Your task to perform on an android device: read, delete, or share a saved page in the chrome app Image 0: 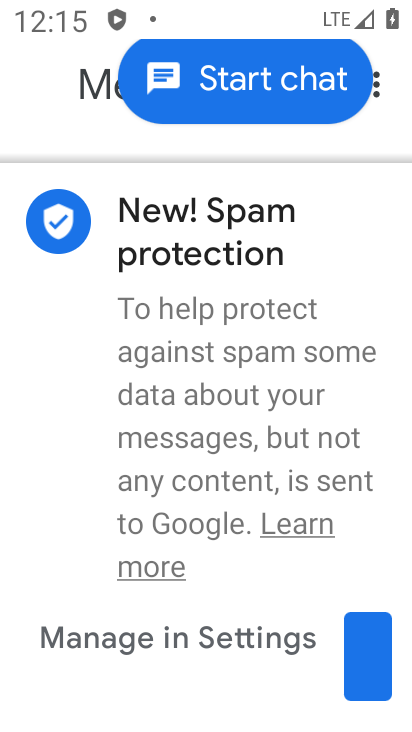
Step 0: press home button
Your task to perform on an android device: read, delete, or share a saved page in the chrome app Image 1: 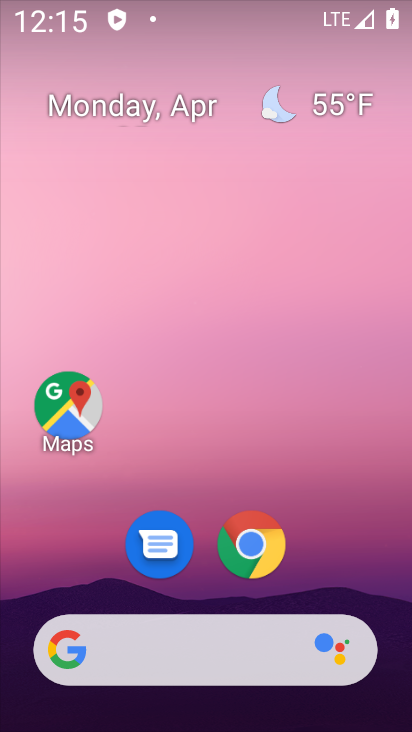
Step 1: click (269, 548)
Your task to perform on an android device: read, delete, or share a saved page in the chrome app Image 2: 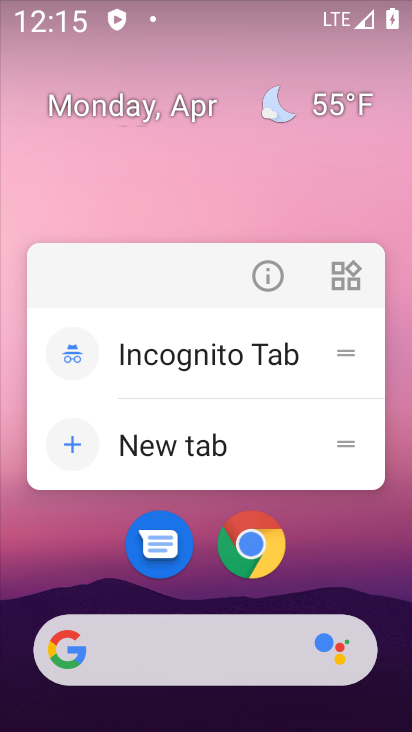
Step 2: click (269, 548)
Your task to perform on an android device: read, delete, or share a saved page in the chrome app Image 3: 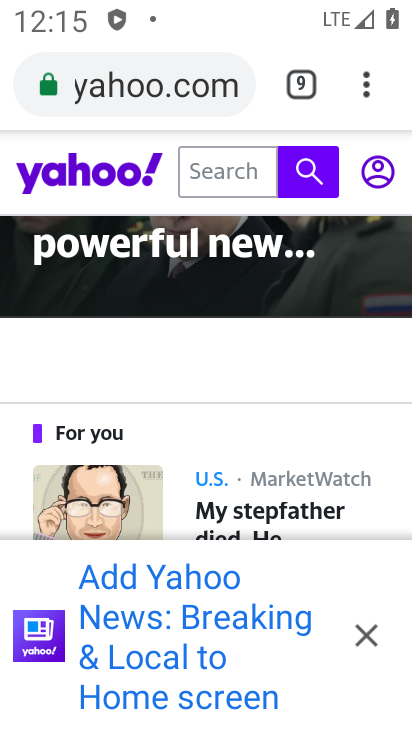
Step 3: drag from (366, 84) to (154, 440)
Your task to perform on an android device: read, delete, or share a saved page in the chrome app Image 4: 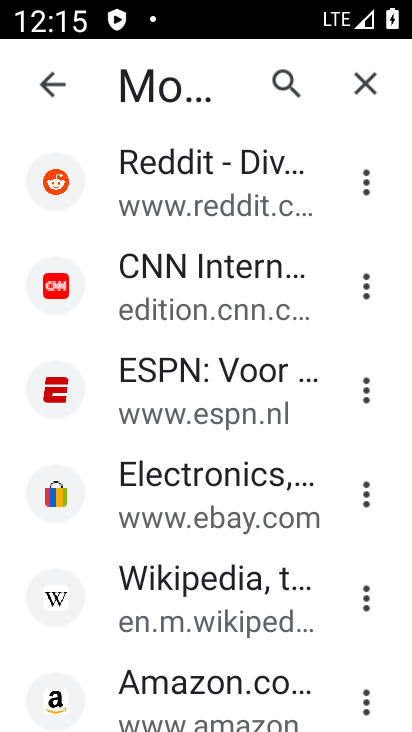
Step 4: drag from (212, 637) to (192, 249)
Your task to perform on an android device: read, delete, or share a saved page in the chrome app Image 5: 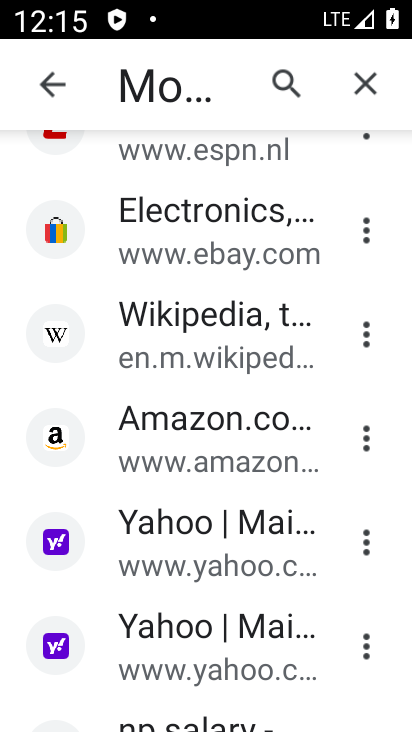
Step 5: click (366, 540)
Your task to perform on an android device: read, delete, or share a saved page in the chrome app Image 6: 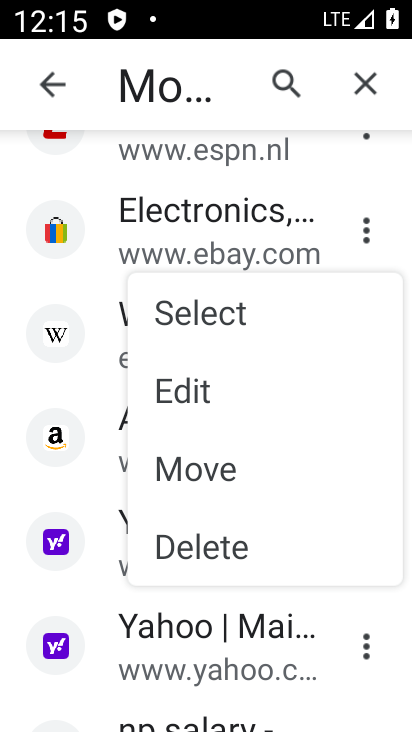
Step 6: click (216, 553)
Your task to perform on an android device: read, delete, or share a saved page in the chrome app Image 7: 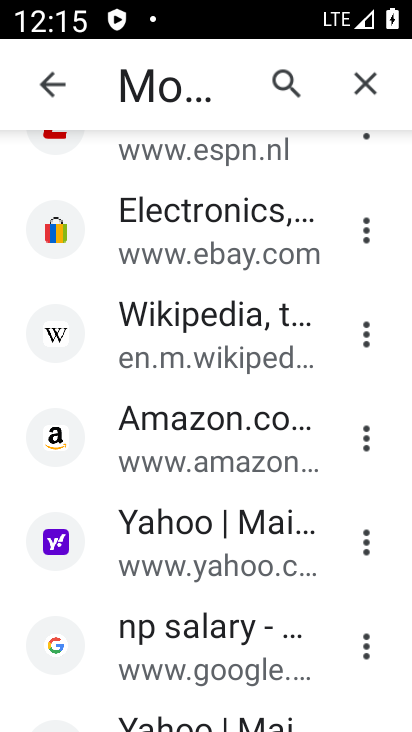
Step 7: task complete